Your task to perform on an android device: Go to eBay Image 0: 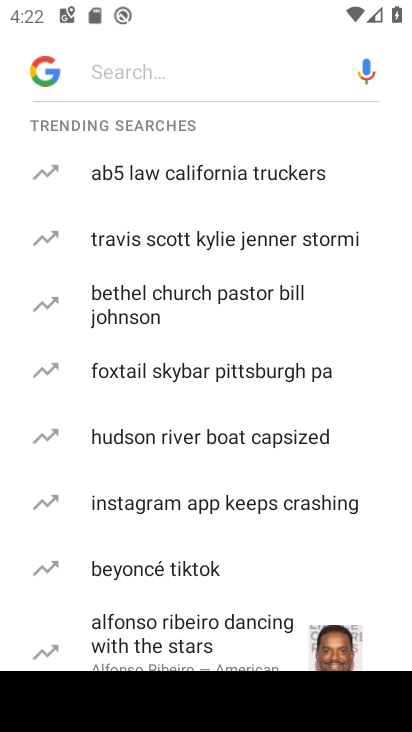
Step 0: type "ebay"
Your task to perform on an android device: Go to eBay Image 1: 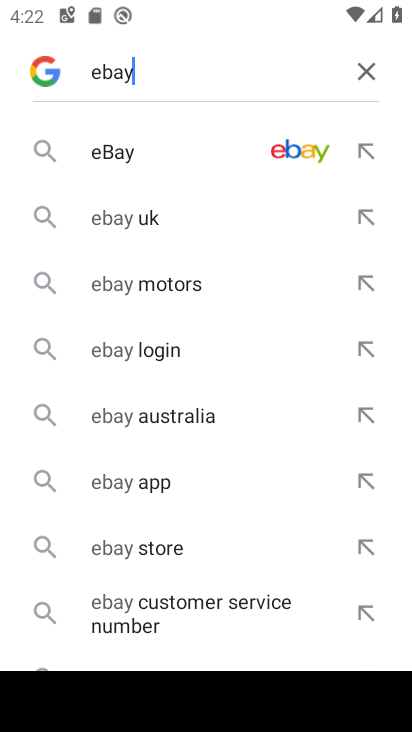
Step 1: click (293, 149)
Your task to perform on an android device: Go to eBay Image 2: 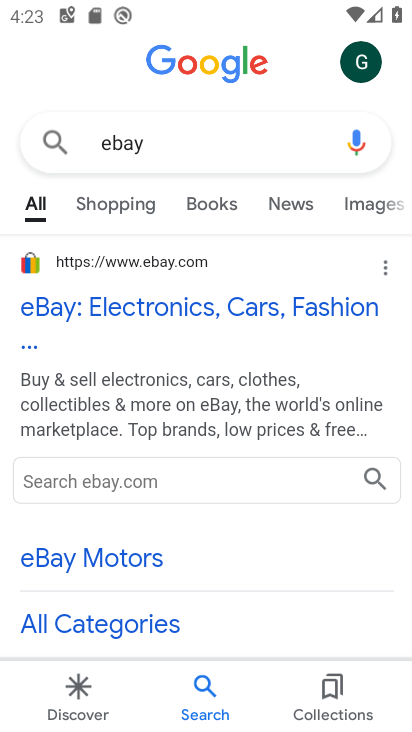
Step 2: click (47, 309)
Your task to perform on an android device: Go to eBay Image 3: 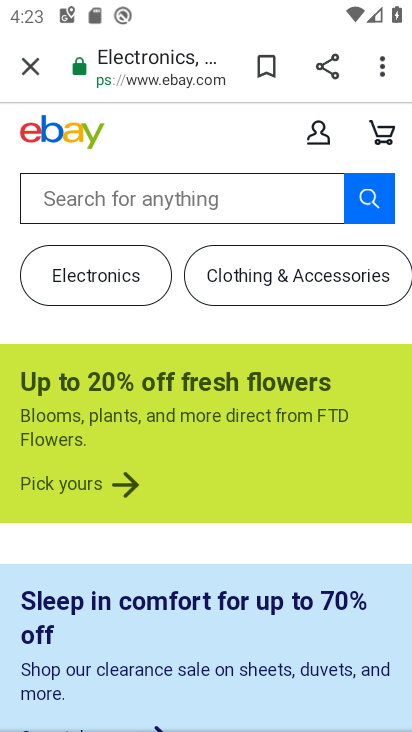
Step 3: task complete